Your task to perform on an android device: open app "Speedtest by Ookla" (install if not already installed) and go to login screen Image 0: 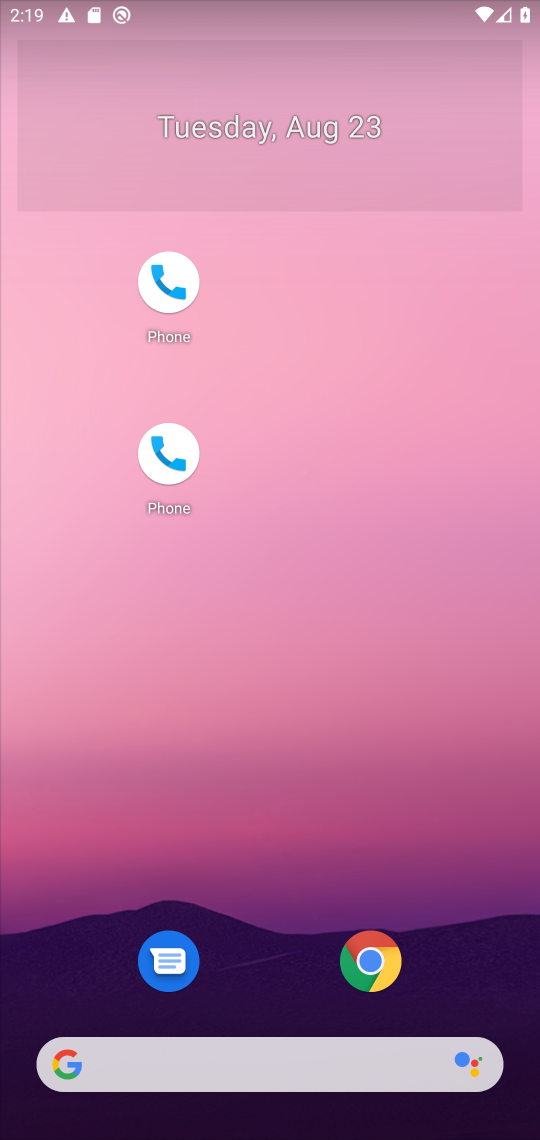
Step 0: drag from (247, 593) to (269, 229)
Your task to perform on an android device: open app "Speedtest by Ookla" (install if not already installed) and go to login screen Image 1: 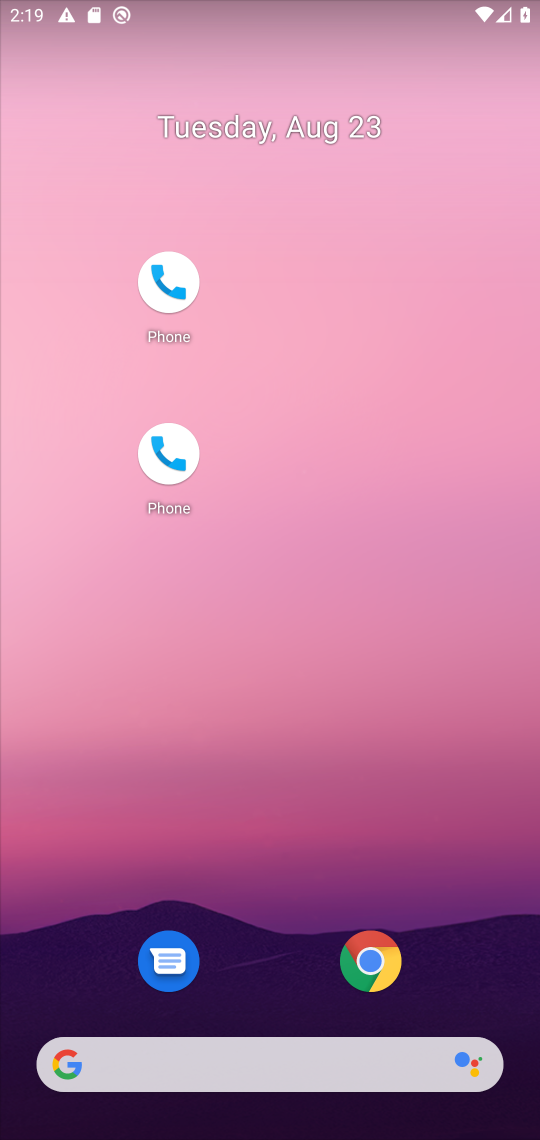
Step 1: drag from (317, 1031) to (399, 350)
Your task to perform on an android device: open app "Speedtest by Ookla" (install if not already installed) and go to login screen Image 2: 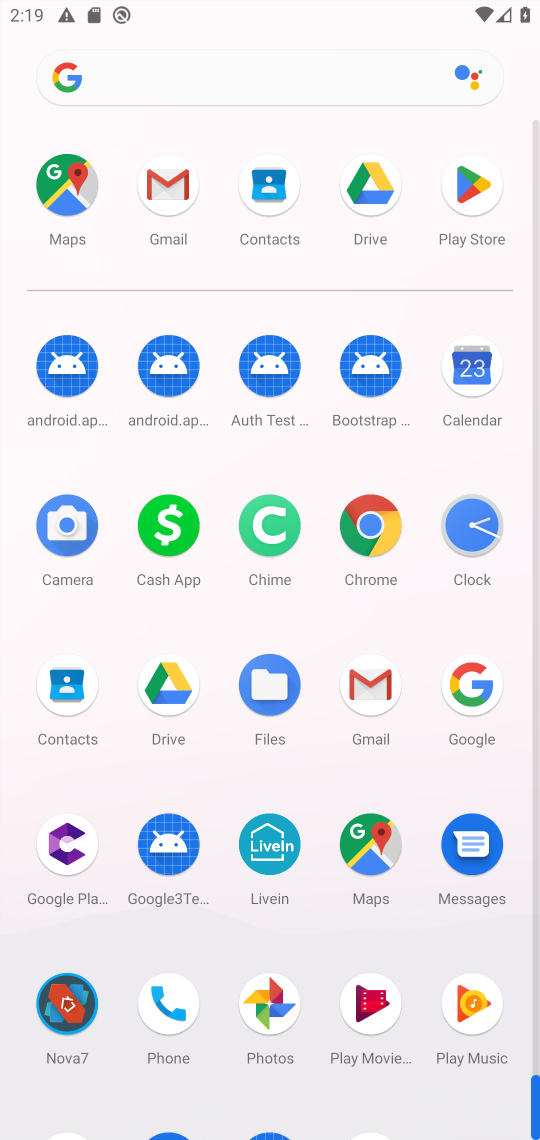
Step 2: click (457, 216)
Your task to perform on an android device: open app "Speedtest by Ookla" (install if not already installed) and go to login screen Image 3: 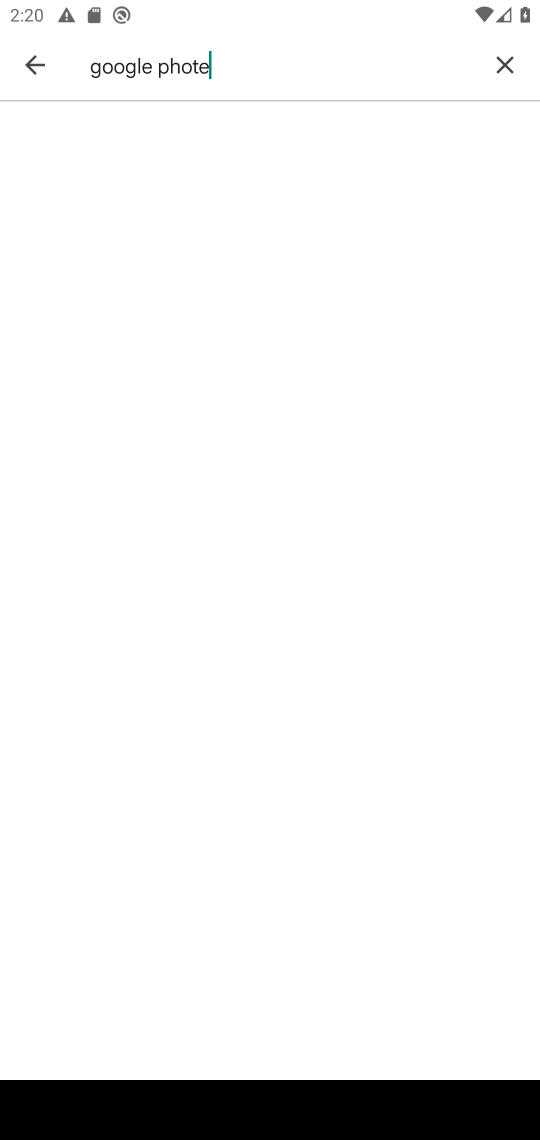
Step 3: click (493, 70)
Your task to perform on an android device: open app "Speedtest by Ookla" (install if not already installed) and go to login screen Image 4: 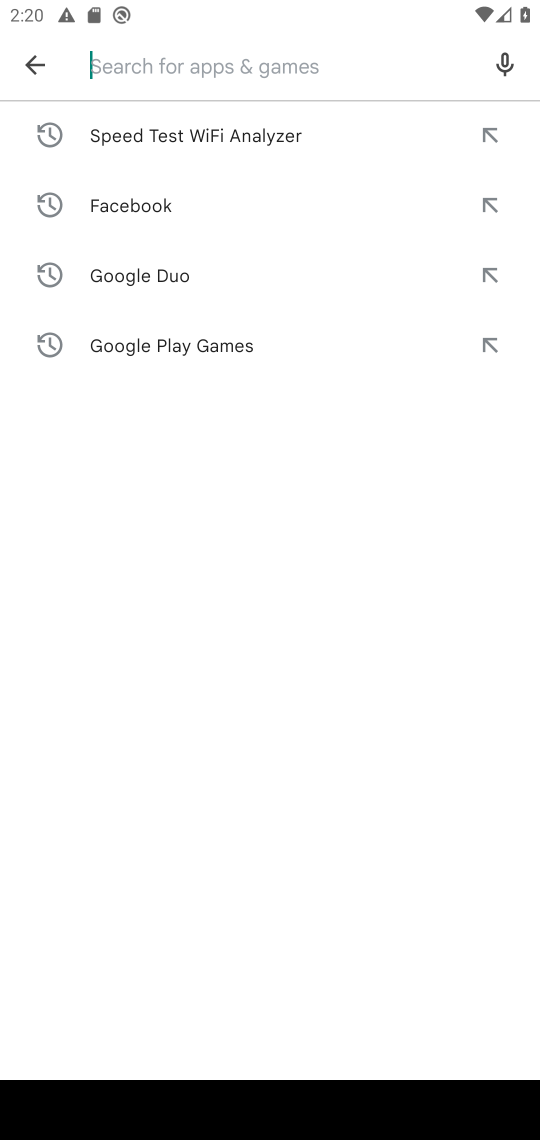
Step 4: type "speedtest"
Your task to perform on an android device: open app "Speedtest by Ookla" (install if not already installed) and go to login screen Image 5: 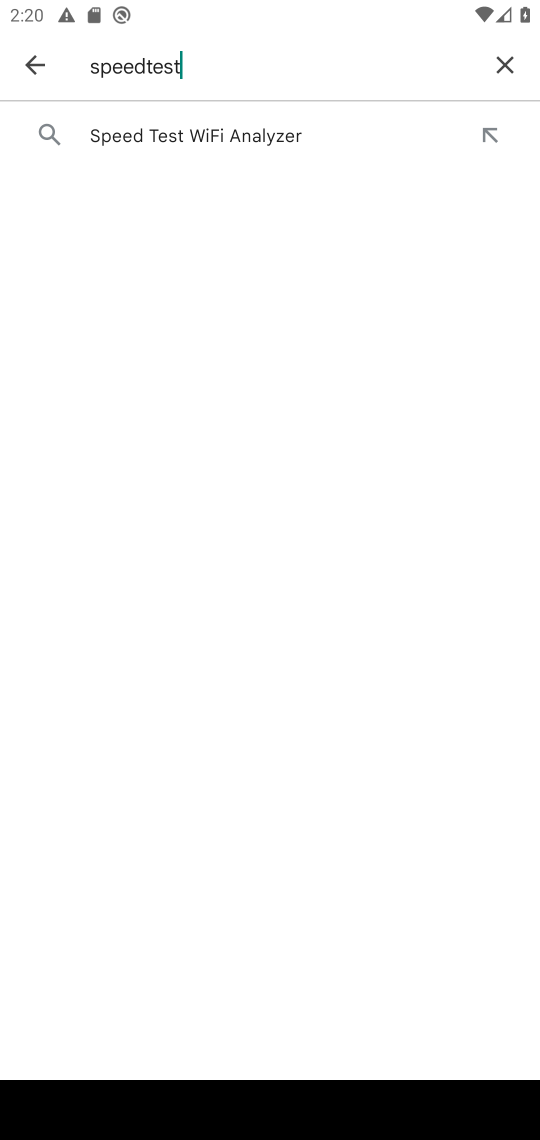
Step 5: click (313, 137)
Your task to perform on an android device: open app "Speedtest by Ookla" (install if not already installed) and go to login screen Image 6: 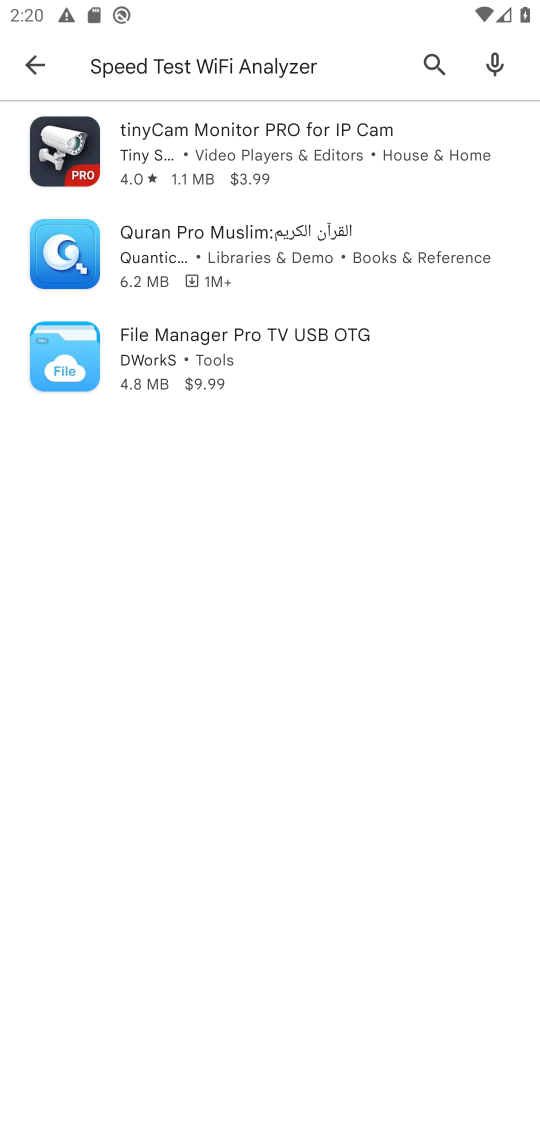
Step 6: task complete